Your task to perform on an android device: open wifi settings Image 0: 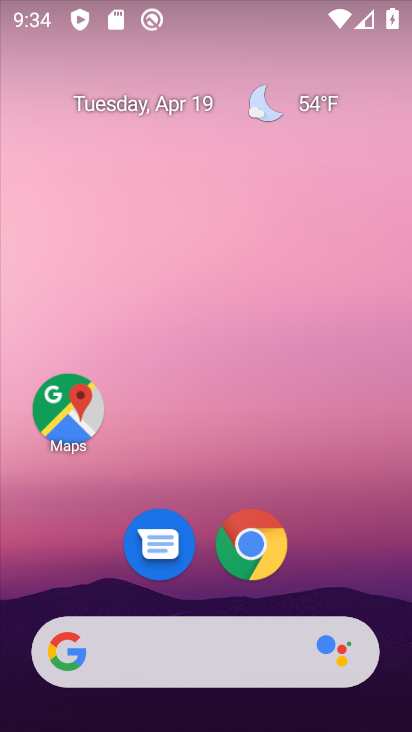
Step 0: drag from (333, 533) to (353, 128)
Your task to perform on an android device: open wifi settings Image 1: 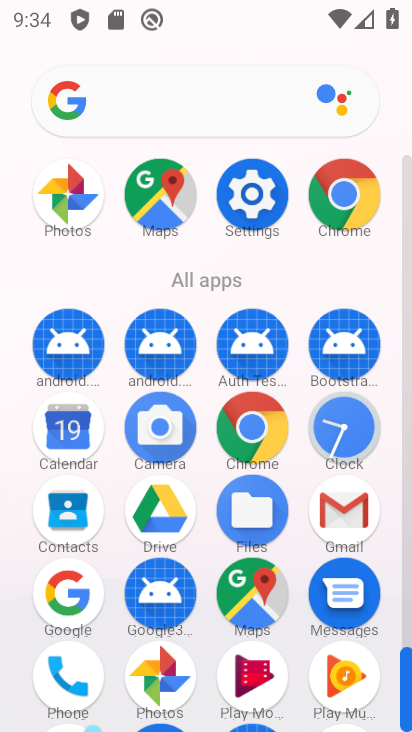
Step 1: click (251, 204)
Your task to perform on an android device: open wifi settings Image 2: 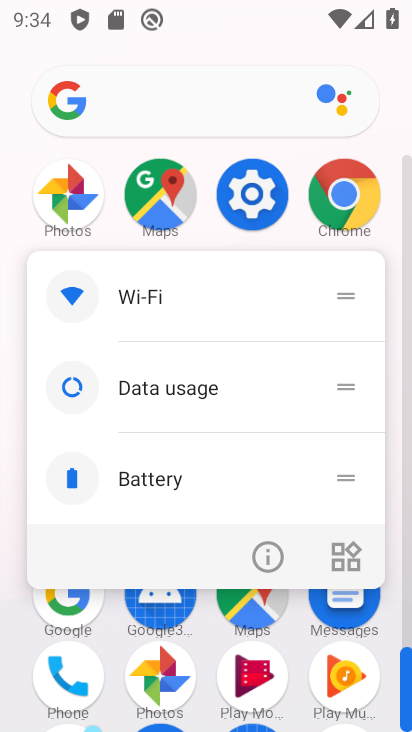
Step 2: click (189, 296)
Your task to perform on an android device: open wifi settings Image 3: 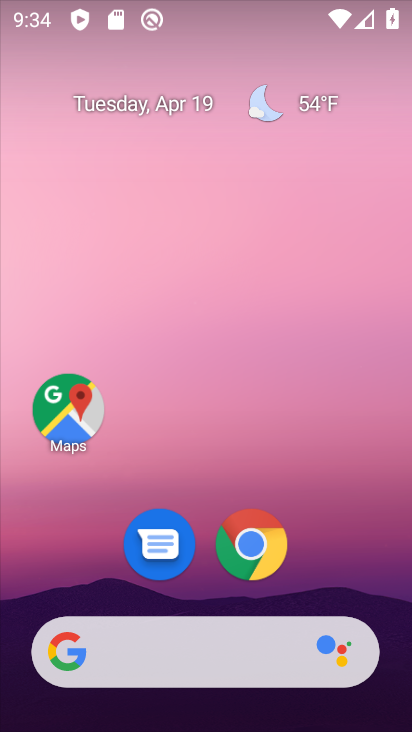
Step 3: drag from (330, 563) to (352, 93)
Your task to perform on an android device: open wifi settings Image 4: 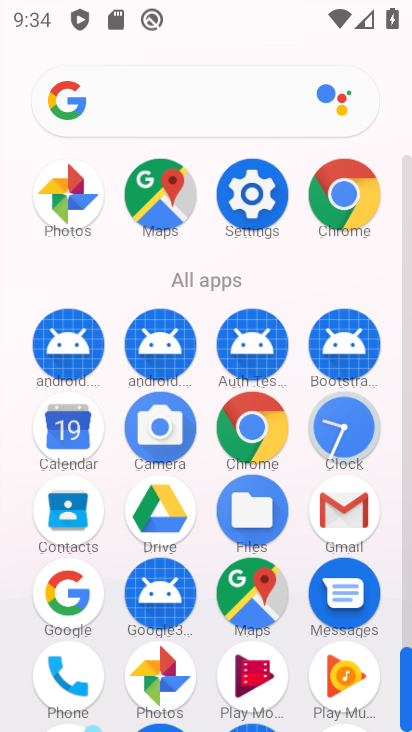
Step 4: click (246, 194)
Your task to perform on an android device: open wifi settings Image 5: 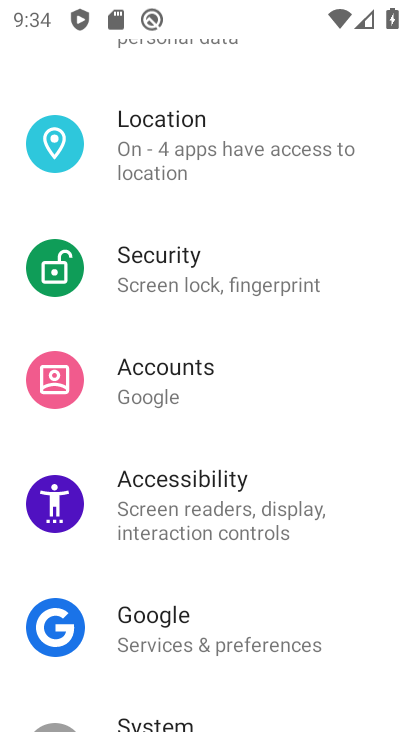
Step 5: drag from (287, 259) to (291, 665)
Your task to perform on an android device: open wifi settings Image 6: 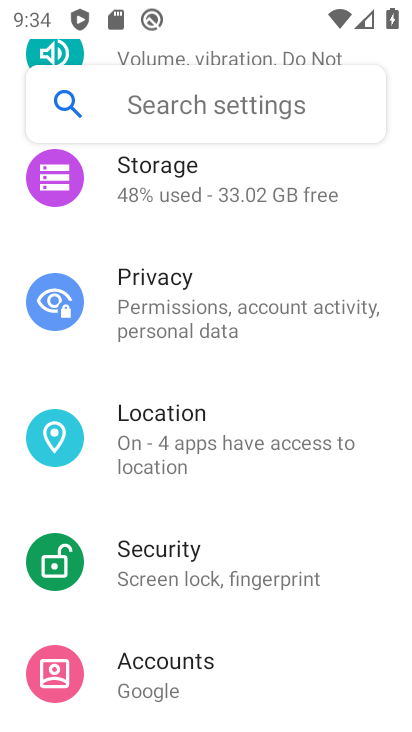
Step 6: drag from (269, 260) to (270, 616)
Your task to perform on an android device: open wifi settings Image 7: 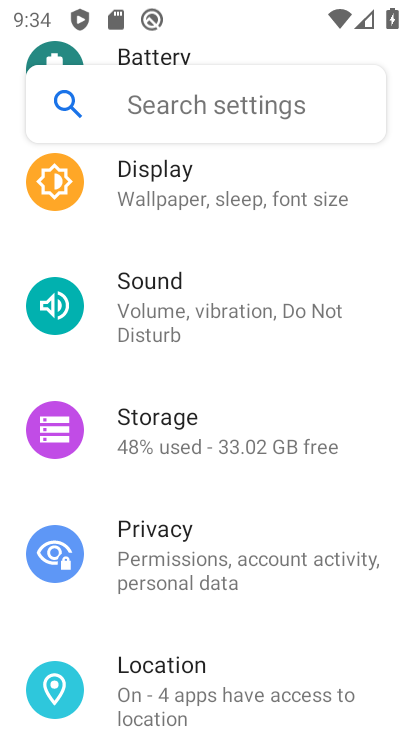
Step 7: drag from (243, 263) to (244, 647)
Your task to perform on an android device: open wifi settings Image 8: 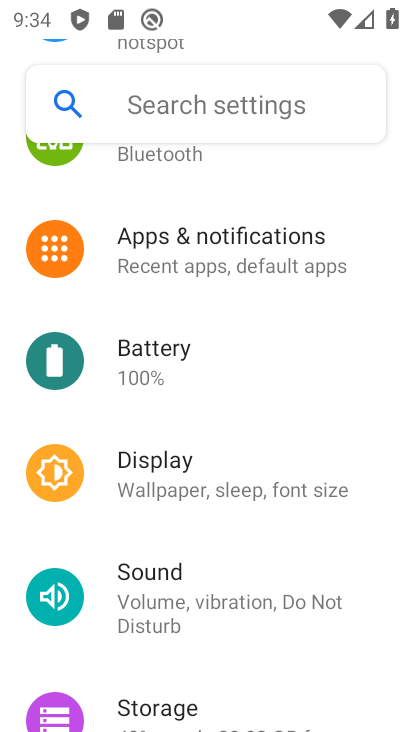
Step 8: drag from (243, 322) to (233, 664)
Your task to perform on an android device: open wifi settings Image 9: 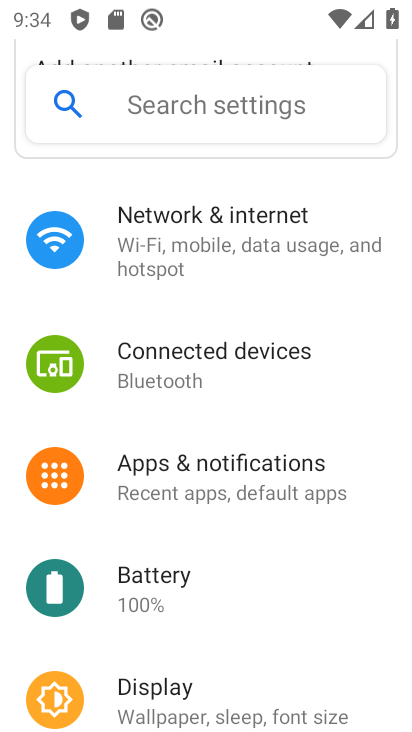
Step 9: drag from (240, 316) to (200, 640)
Your task to perform on an android device: open wifi settings Image 10: 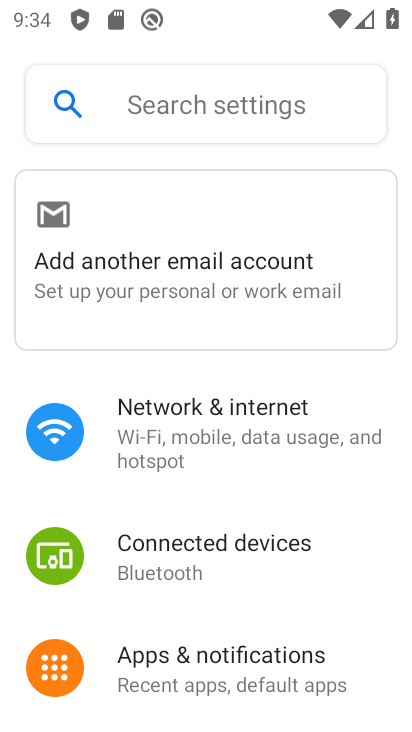
Step 10: click (199, 445)
Your task to perform on an android device: open wifi settings Image 11: 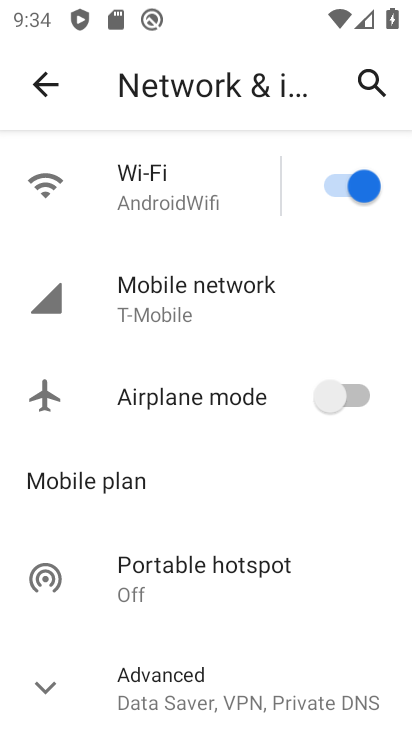
Step 11: click (157, 182)
Your task to perform on an android device: open wifi settings Image 12: 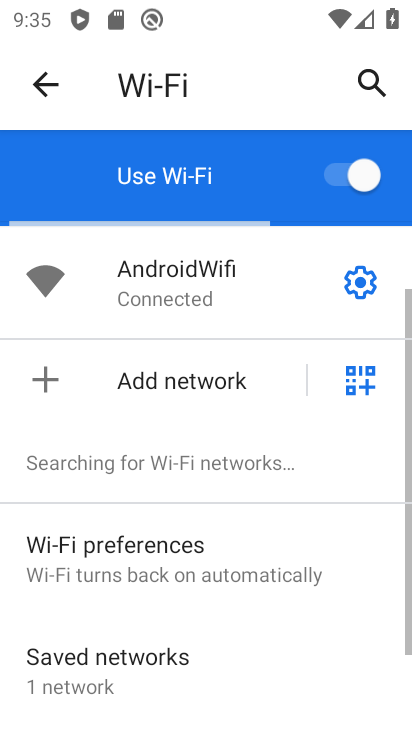
Step 12: task complete